Your task to perform on an android device: toggle wifi Image 0: 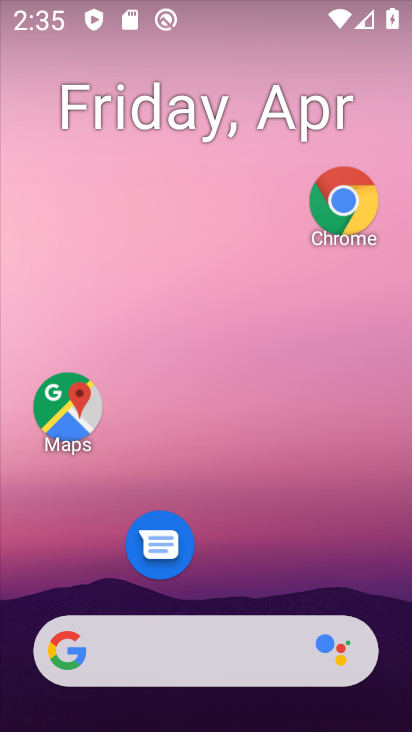
Step 0: drag from (243, 584) to (251, 5)
Your task to perform on an android device: toggle wifi Image 1: 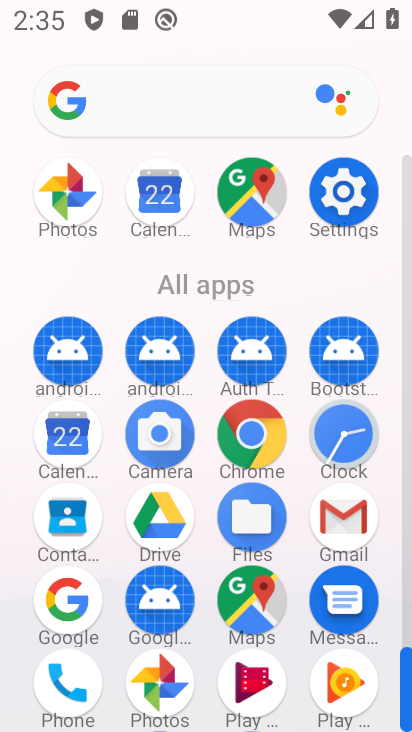
Step 1: click (346, 203)
Your task to perform on an android device: toggle wifi Image 2: 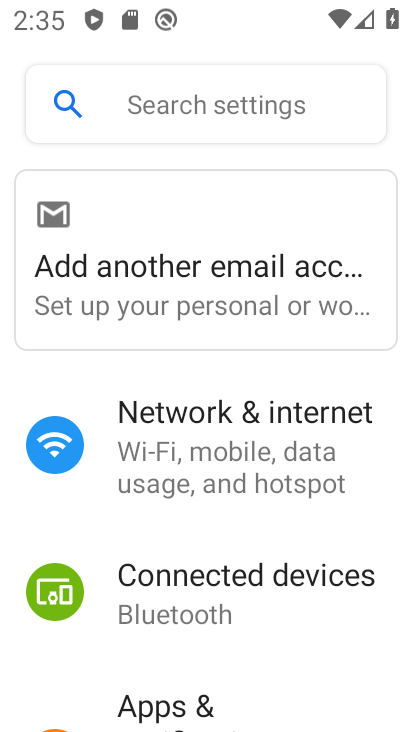
Step 2: click (231, 467)
Your task to perform on an android device: toggle wifi Image 3: 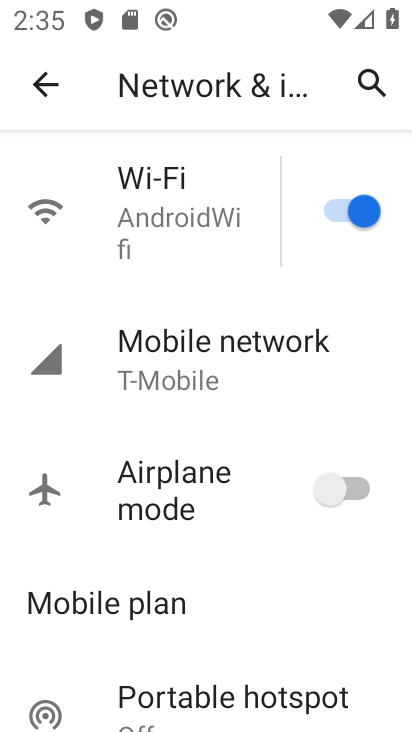
Step 3: click (326, 203)
Your task to perform on an android device: toggle wifi Image 4: 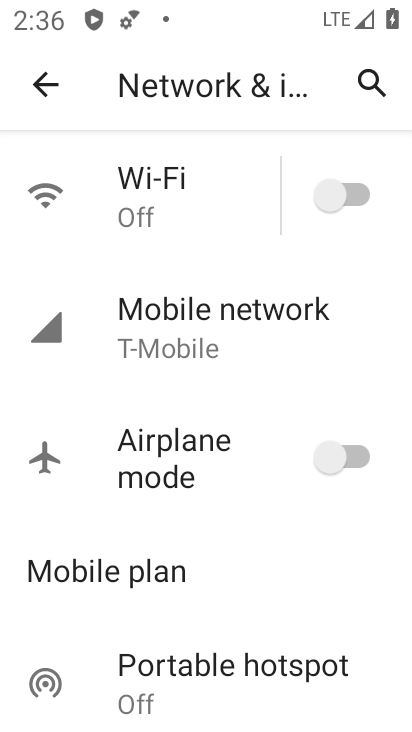
Step 4: task complete